Your task to perform on an android device: snooze an email in the gmail app Image 0: 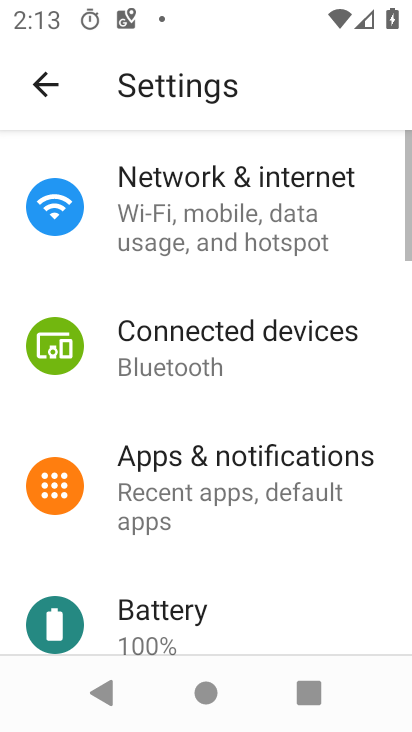
Step 0: press home button
Your task to perform on an android device: snooze an email in the gmail app Image 1: 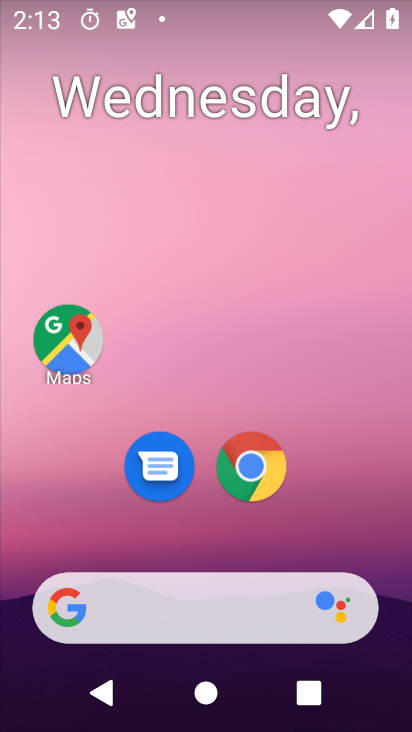
Step 1: drag from (320, 545) to (304, 56)
Your task to perform on an android device: snooze an email in the gmail app Image 2: 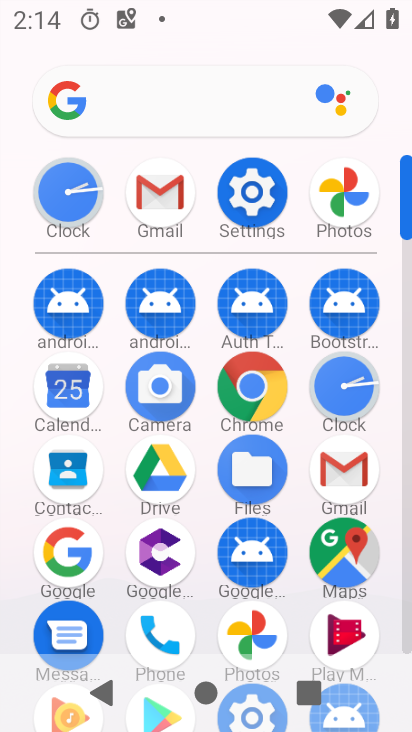
Step 2: click (170, 207)
Your task to perform on an android device: snooze an email in the gmail app Image 3: 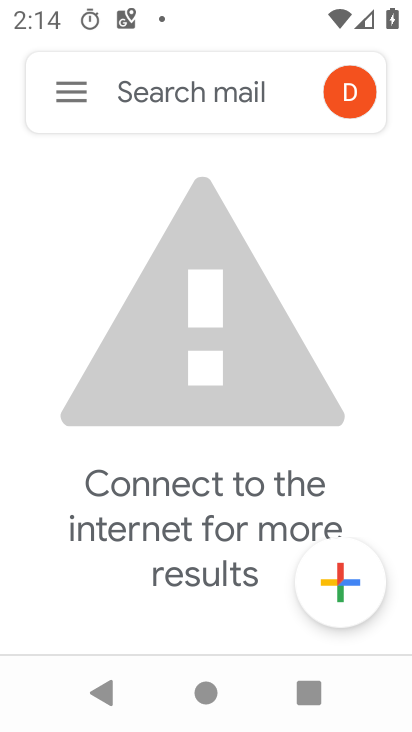
Step 3: click (76, 103)
Your task to perform on an android device: snooze an email in the gmail app Image 4: 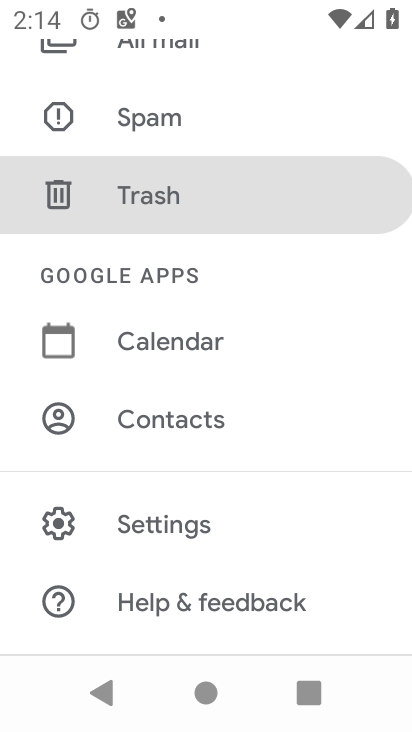
Step 4: drag from (181, 144) to (154, 530)
Your task to perform on an android device: snooze an email in the gmail app Image 5: 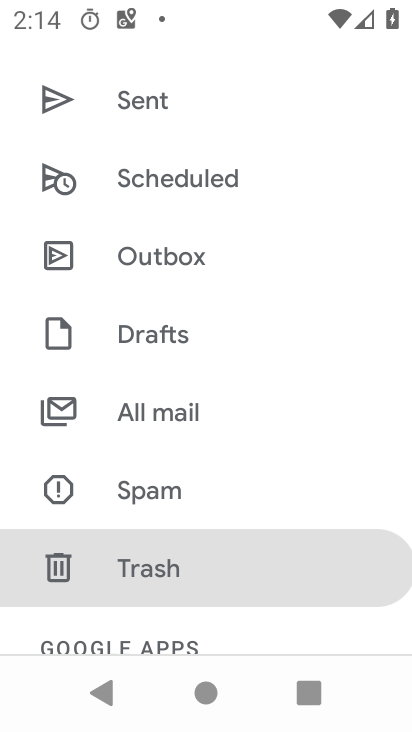
Step 5: drag from (168, 231) to (199, 543)
Your task to perform on an android device: snooze an email in the gmail app Image 6: 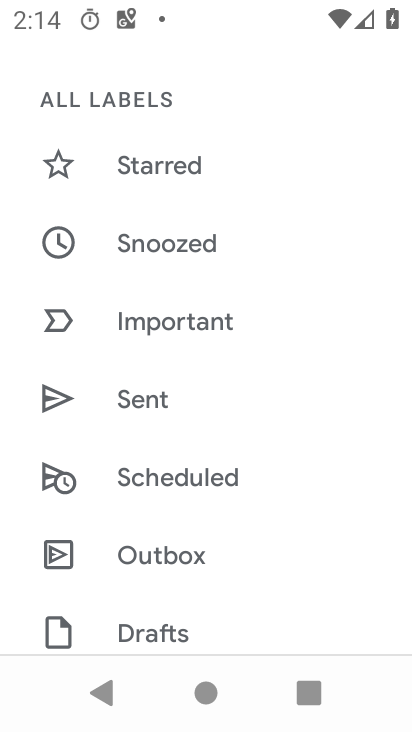
Step 6: drag from (191, 75) to (205, 585)
Your task to perform on an android device: snooze an email in the gmail app Image 7: 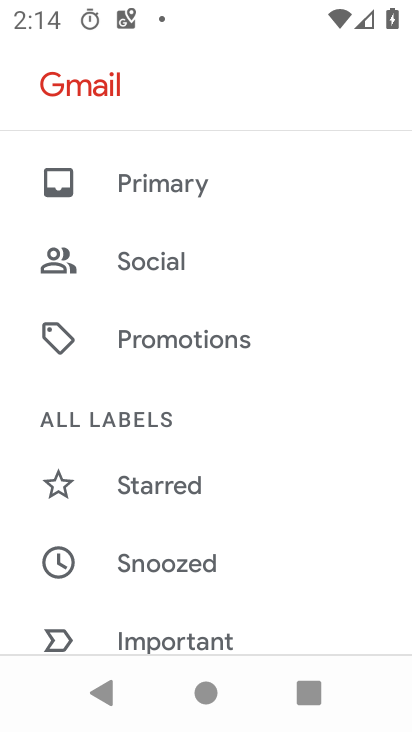
Step 7: click (213, 567)
Your task to perform on an android device: snooze an email in the gmail app Image 8: 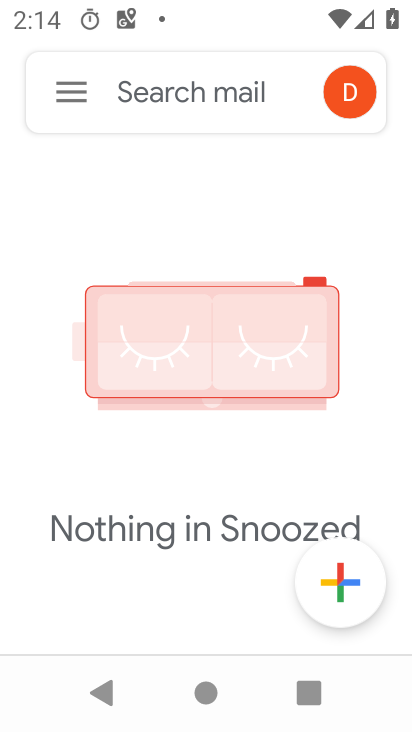
Step 8: task complete